Your task to perform on an android device: see tabs open on other devices in the chrome app Image 0: 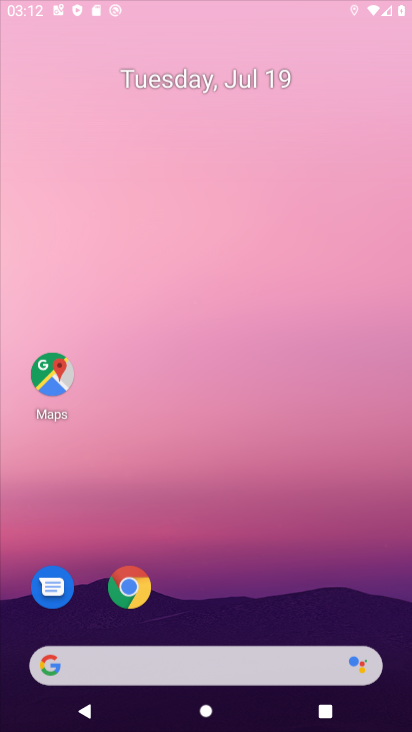
Step 0: drag from (257, 543) to (214, 157)
Your task to perform on an android device: see tabs open on other devices in the chrome app Image 1: 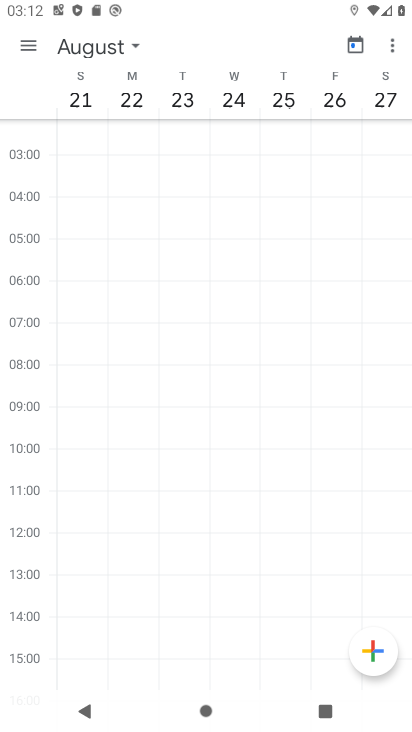
Step 1: press home button
Your task to perform on an android device: see tabs open on other devices in the chrome app Image 2: 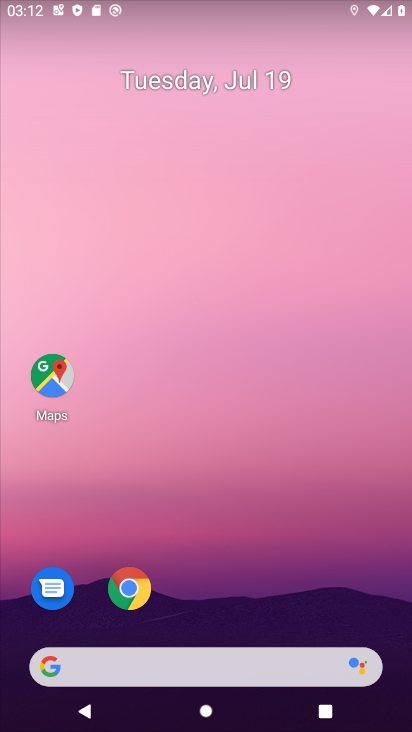
Step 2: drag from (236, 554) to (192, 128)
Your task to perform on an android device: see tabs open on other devices in the chrome app Image 3: 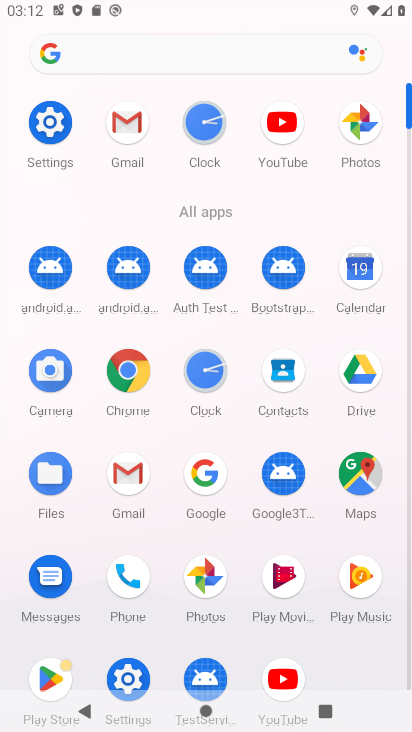
Step 3: click (124, 364)
Your task to perform on an android device: see tabs open on other devices in the chrome app Image 4: 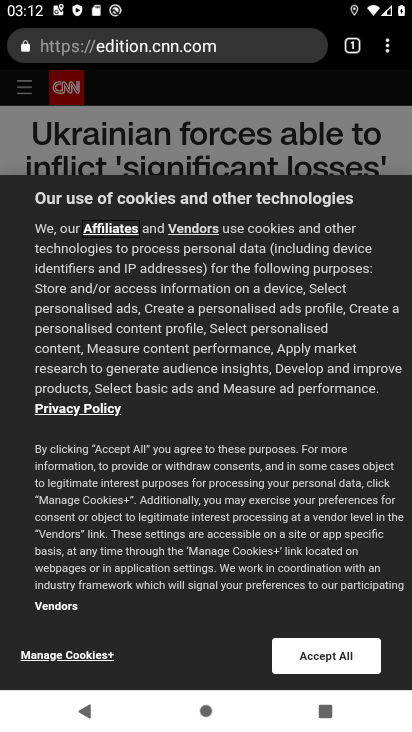
Step 4: click (386, 48)
Your task to perform on an android device: see tabs open on other devices in the chrome app Image 5: 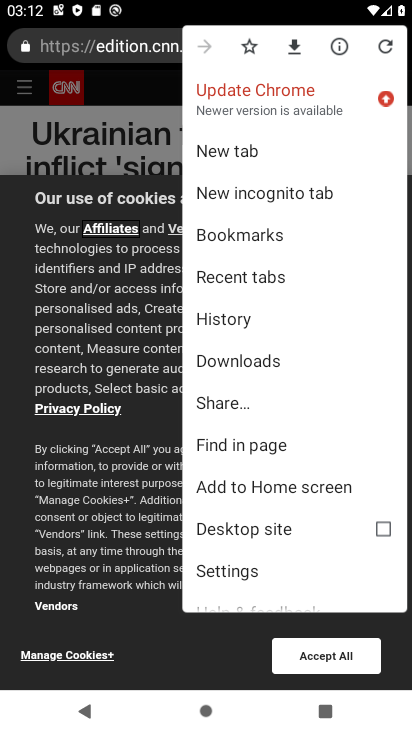
Step 5: click (242, 277)
Your task to perform on an android device: see tabs open on other devices in the chrome app Image 6: 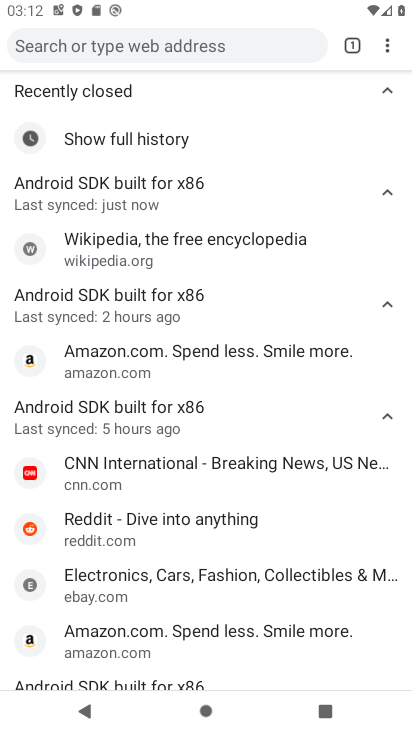
Step 6: task complete